Your task to perform on an android device: Search for seafood restaurants on Google Maps Image 0: 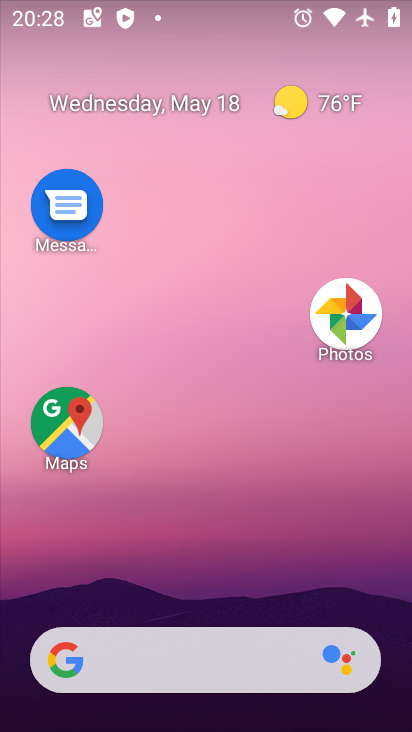
Step 0: click (77, 442)
Your task to perform on an android device: Search for seafood restaurants on Google Maps Image 1: 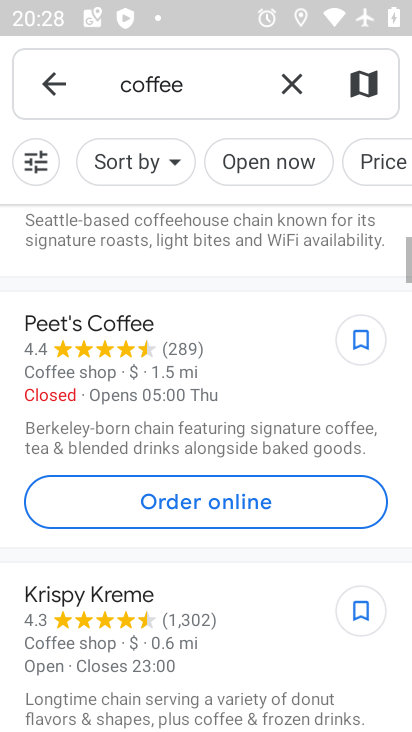
Step 1: click (298, 84)
Your task to perform on an android device: Search for seafood restaurants on Google Maps Image 2: 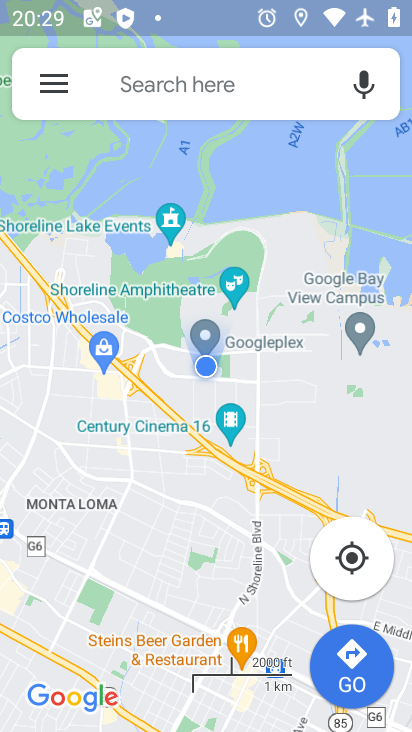
Step 2: click (155, 90)
Your task to perform on an android device: Search for seafood restaurants on Google Maps Image 3: 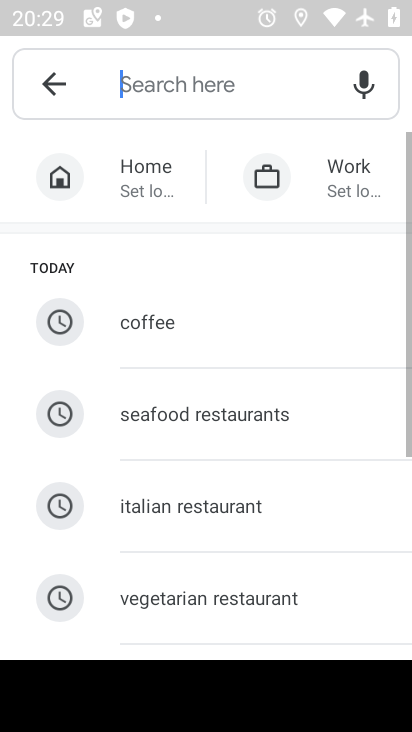
Step 3: click (226, 419)
Your task to perform on an android device: Search for seafood restaurants on Google Maps Image 4: 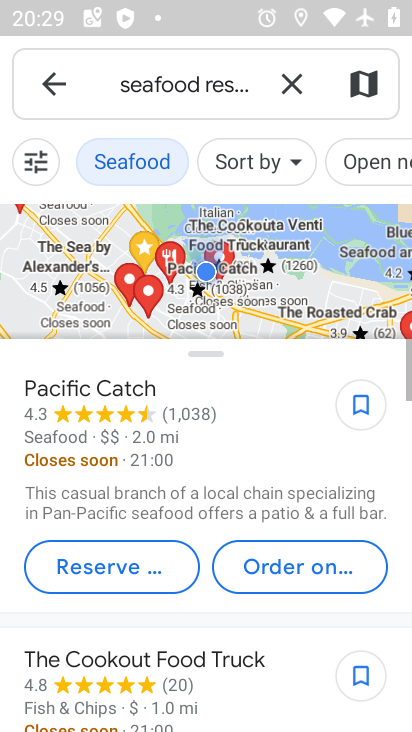
Step 4: task complete